Your task to perform on an android device: Search for vegetarian restaurants on Maps Image 0: 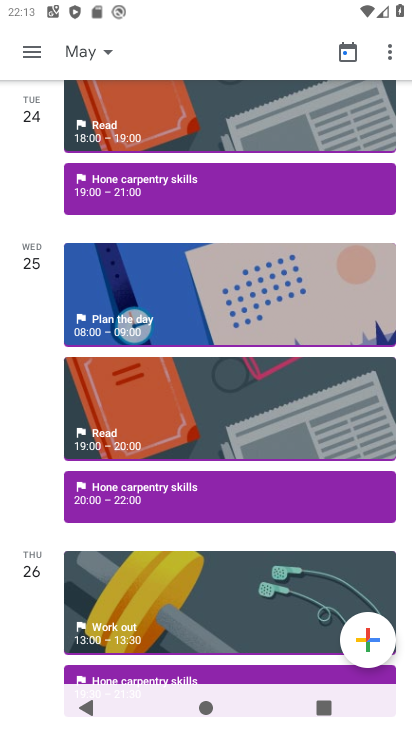
Step 0: press home button
Your task to perform on an android device: Search for vegetarian restaurants on Maps Image 1: 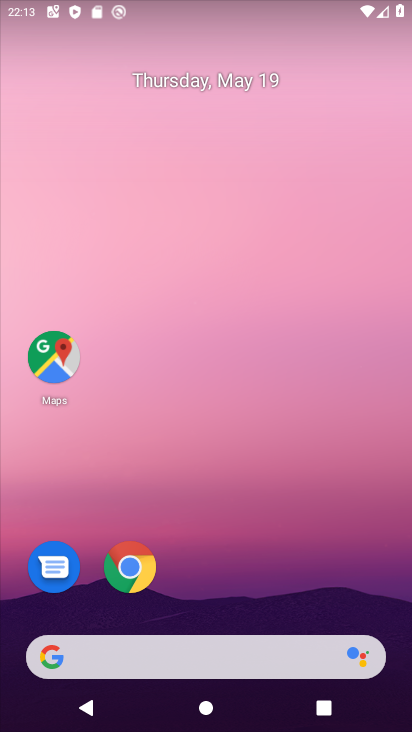
Step 1: click (51, 361)
Your task to perform on an android device: Search for vegetarian restaurants on Maps Image 2: 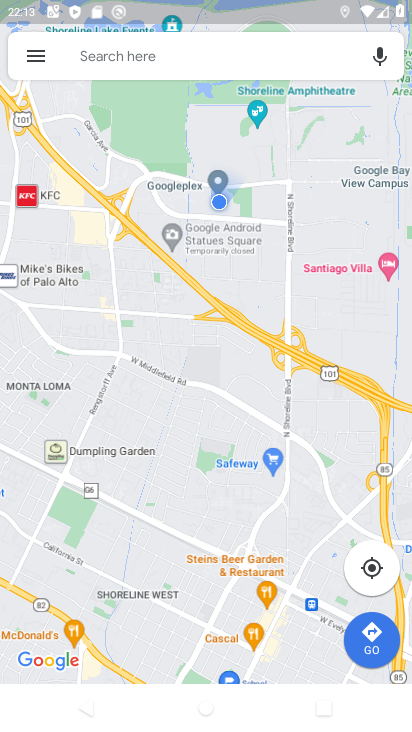
Step 2: click (117, 48)
Your task to perform on an android device: Search for vegetarian restaurants on Maps Image 3: 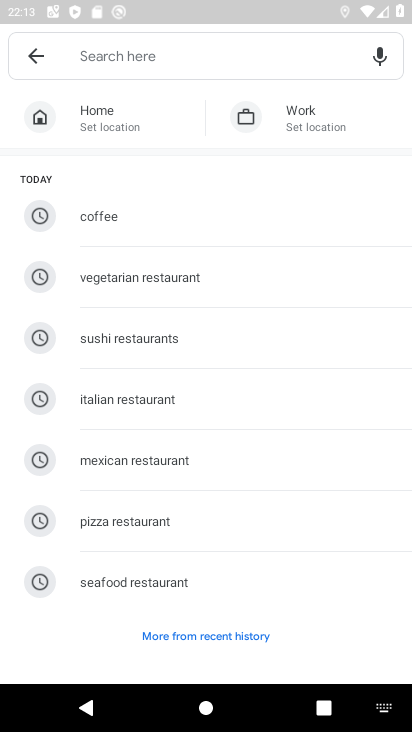
Step 3: click (150, 273)
Your task to perform on an android device: Search for vegetarian restaurants on Maps Image 4: 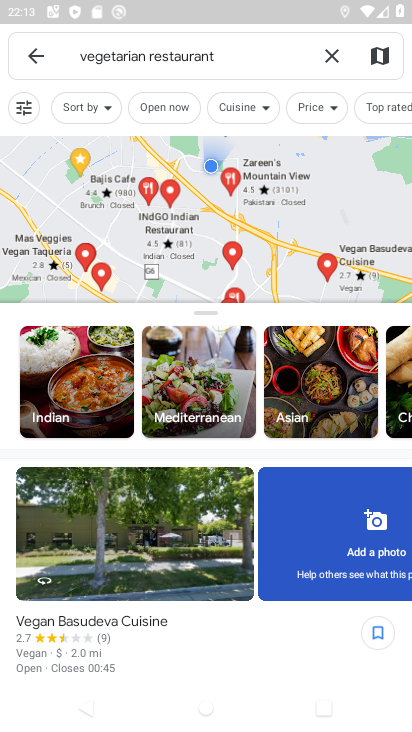
Step 4: task complete